Your task to perform on an android device: Open the phone app and click the voicemail tab. Image 0: 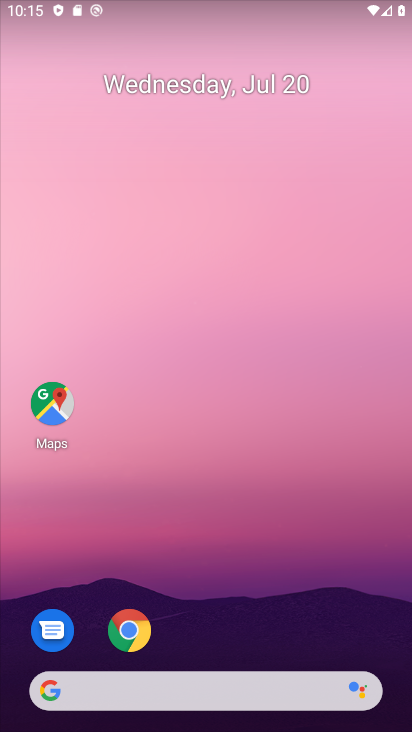
Step 0: drag from (225, 607) to (166, 68)
Your task to perform on an android device: Open the phone app and click the voicemail tab. Image 1: 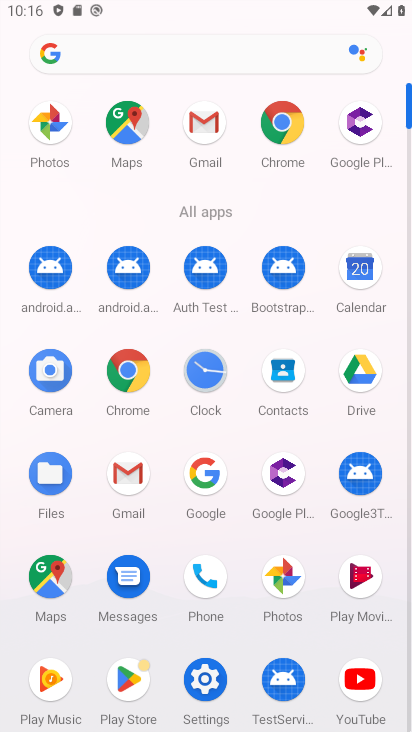
Step 1: click (199, 571)
Your task to perform on an android device: Open the phone app and click the voicemail tab. Image 2: 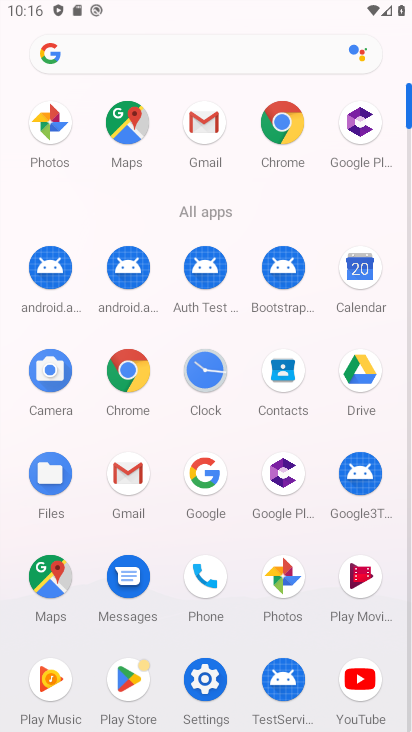
Step 2: click (198, 579)
Your task to perform on an android device: Open the phone app and click the voicemail tab. Image 3: 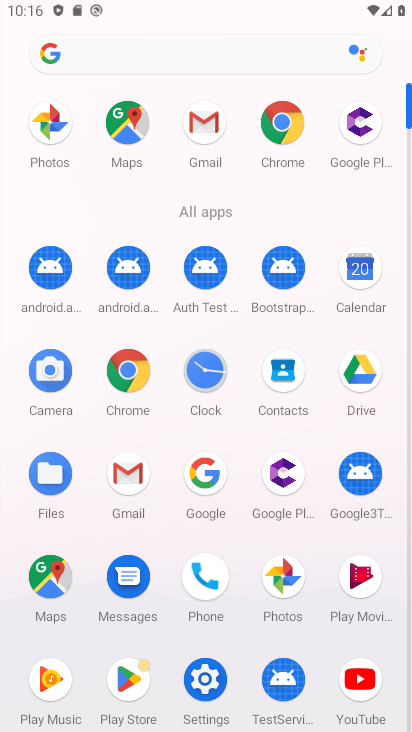
Step 3: click (200, 598)
Your task to perform on an android device: Open the phone app and click the voicemail tab. Image 4: 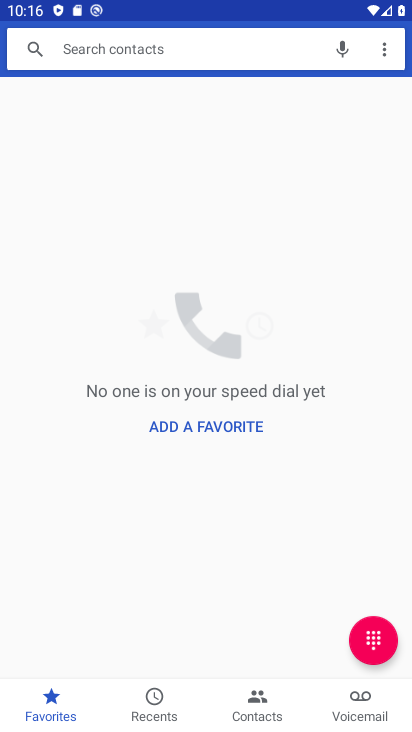
Step 4: click (364, 701)
Your task to perform on an android device: Open the phone app and click the voicemail tab. Image 5: 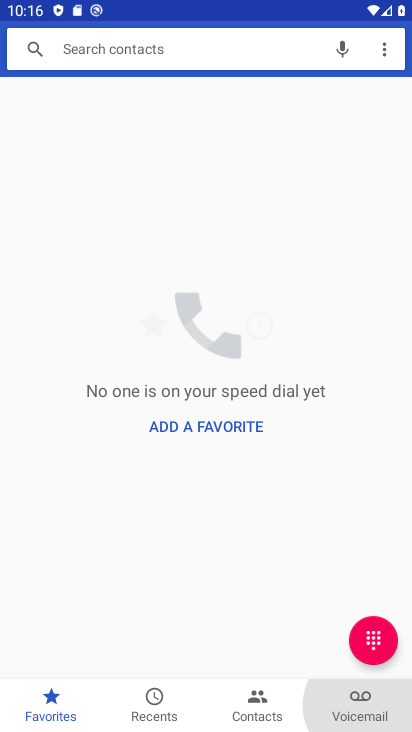
Step 5: click (364, 695)
Your task to perform on an android device: Open the phone app and click the voicemail tab. Image 6: 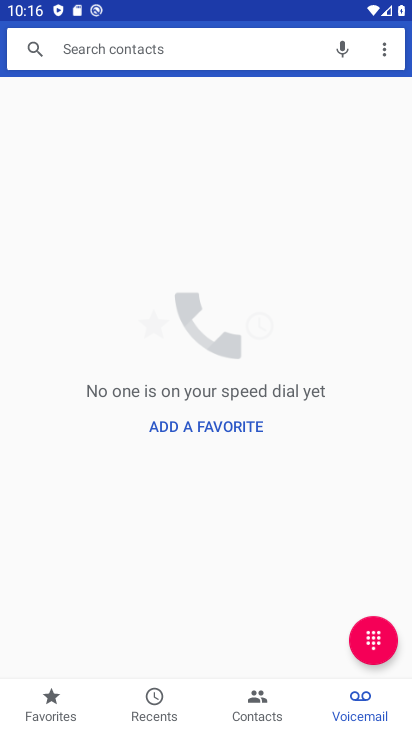
Step 6: click (365, 697)
Your task to perform on an android device: Open the phone app and click the voicemail tab. Image 7: 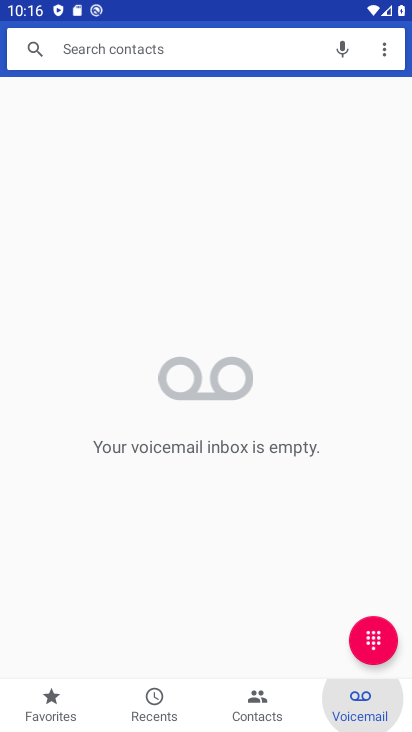
Step 7: click (368, 696)
Your task to perform on an android device: Open the phone app and click the voicemail tab. Image 8: 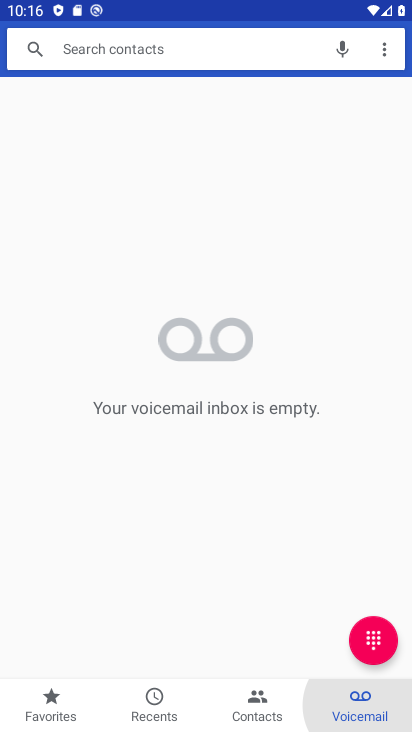
Step 8: click (368, 695)
Your task to perform on an android device: Open the phone app and click the voicemail tab. Image 9: 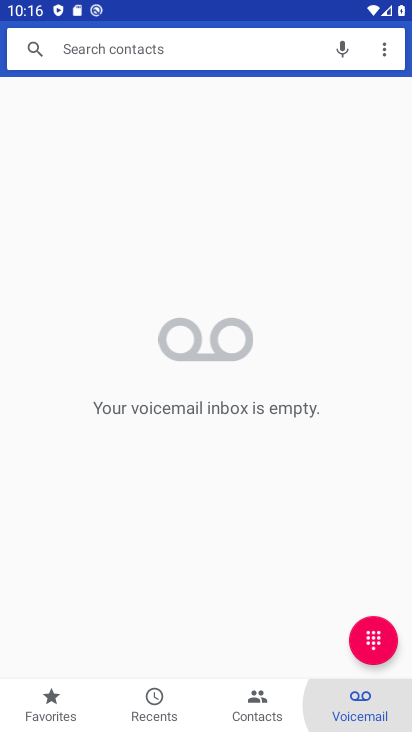
Step 9: click (367, 692)
Your task to perform on an android device: Open the phone app and click the voicemail tab. Image 10: 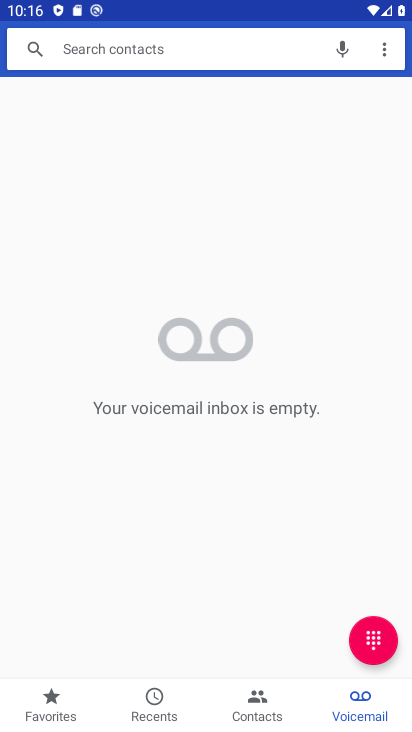
Step 10: click (362, 709)
Your task to perform on an android device: Open the phone app and click the voicemail tab. Image 11: 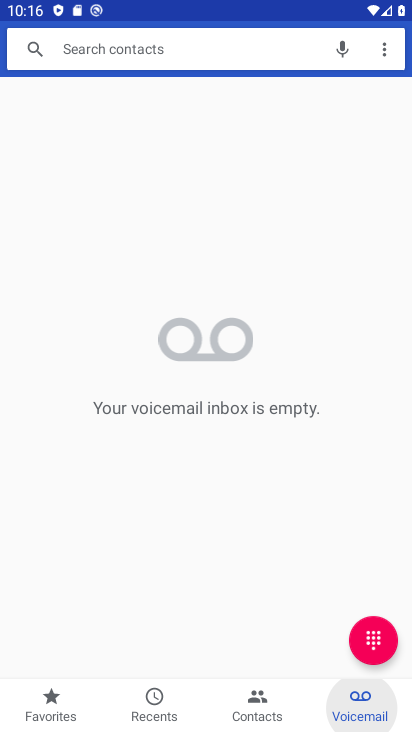
Step 11: click (362, 709)
Your task to perform on an android device: Open the phone app and click the voicemail tab. Image 12: 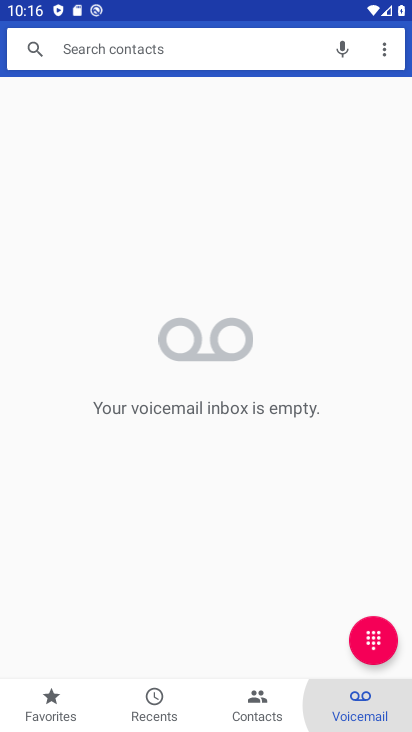
Step 12: click (361, 709)
Your task to perform on an android device: Open the phone app and click the voicemail tab. Image 13: 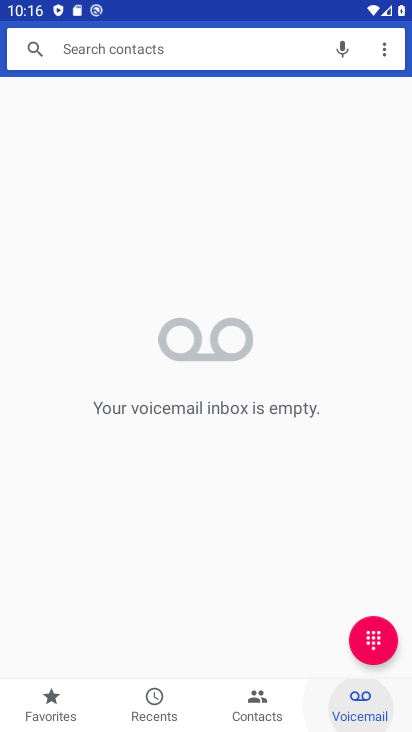
Step 13: click (360, 710)
Your task to perform on an android device: Open the phone app and click the voicemail tab. Image 14: 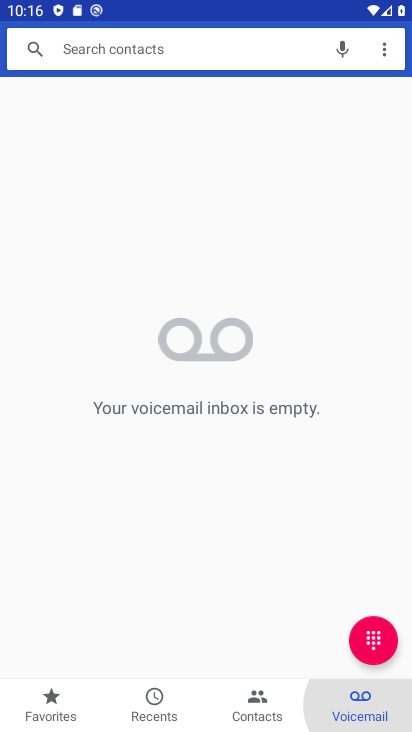
Step 14: click (360, 709)
Your task to perform on an android device: Open the phone app and click the voicemail tab. Image 15: 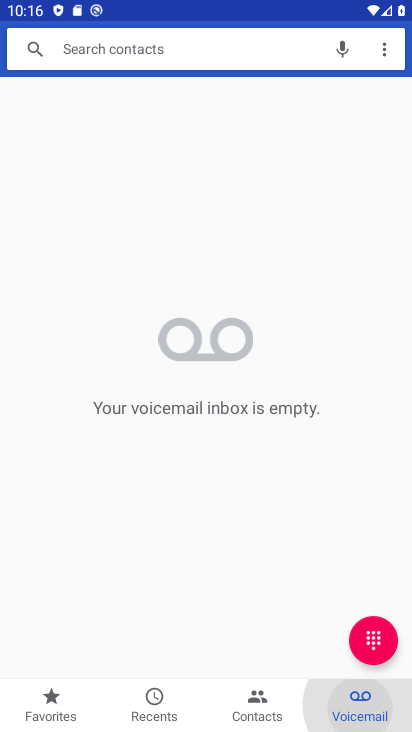
Step 15: click (360, 708)
Your task to perform on an android device: Open the phone app and click the voicemail tab. Image 16: 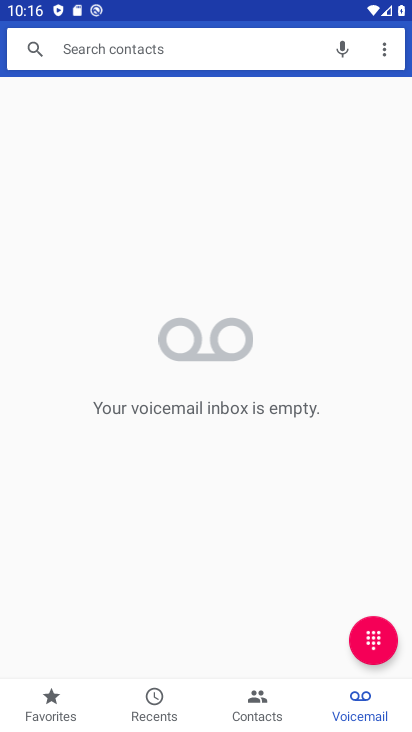
Step 16: task complete